Your task to perform on an android device: Set an alarm for 1pm Image 0: 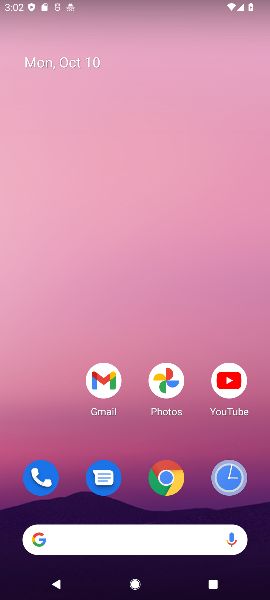
Step 0: drag from (142, 500) to (137, 71)
Your task to perform on an android device: Set an alarm for 1pm Image 1: 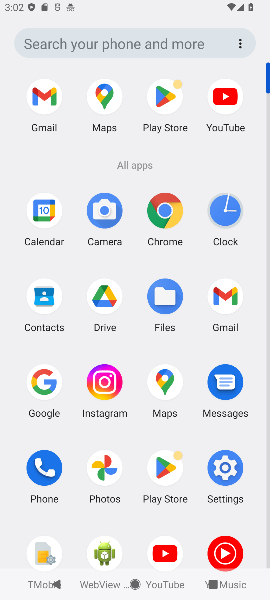
Step 1: click (220, 200)
Your task to perform on an android device: Set an alarm for 1pm Image 2: 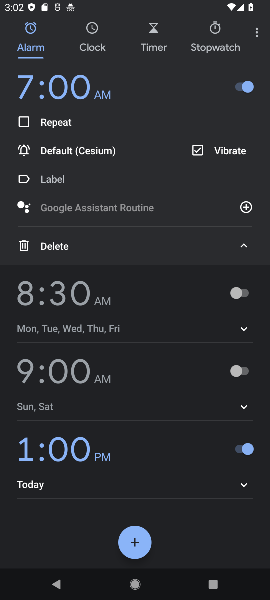
Step 2: click (131, 463)
Your task to perform on an android device: Set an alarm for 1pm Image 3: 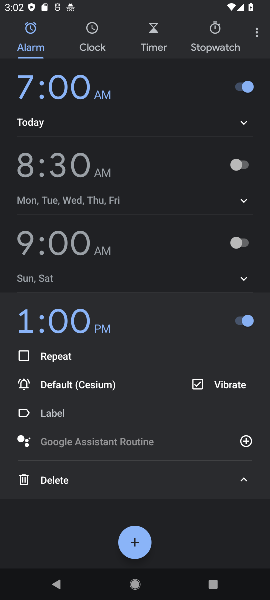
Step 3: click (248, 87)
Your task to perform on an android device: Set an alarm for 1pm Image 4: 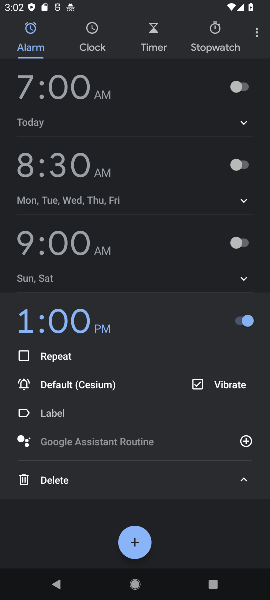
Step 4: task complete